Your task to perform on an android device: turn pop-ups off in chrome Image 0: 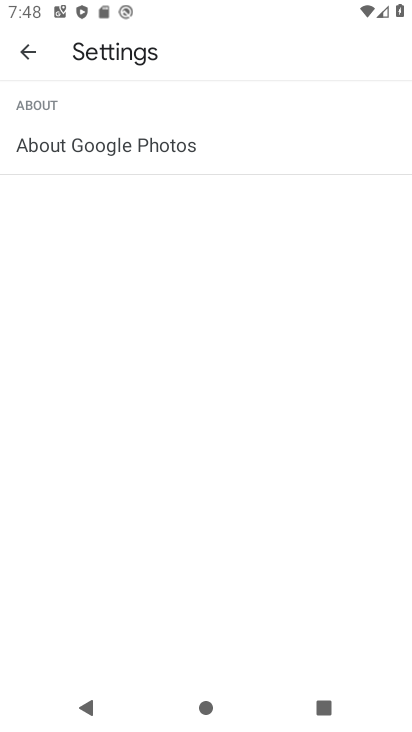
Step 0: press home button
Your task to perform on an android device: turn pop-ups off in chrome Image 1: 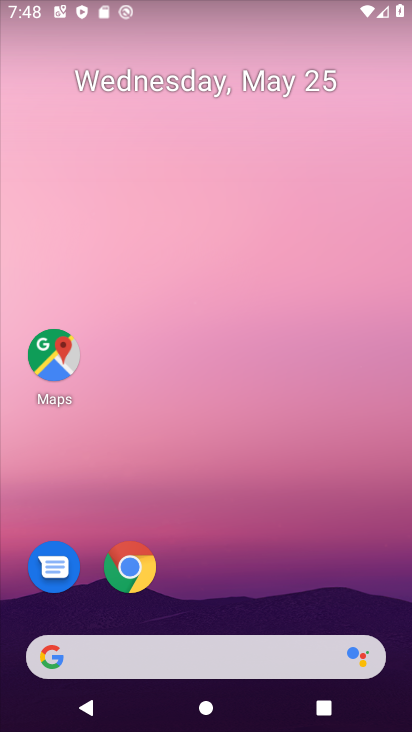
Step 1: click (139, 575)
Your task to perform on an android device: turn pop-ups off in chrome Image 2: 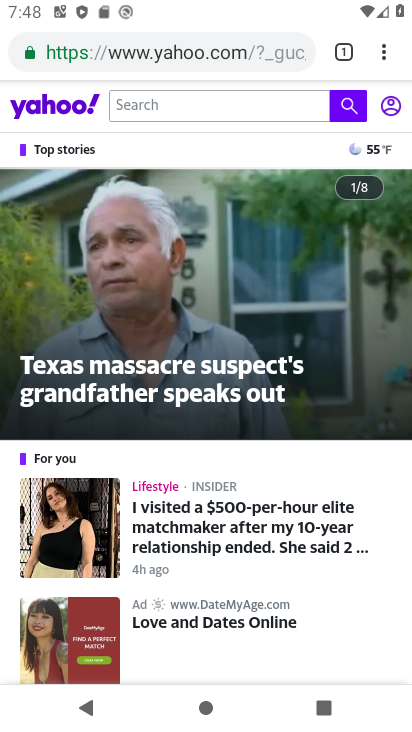
Step 2: click (389, 61)
Your task to perform on an android device: turn pop-ups off in chrome Image 3: 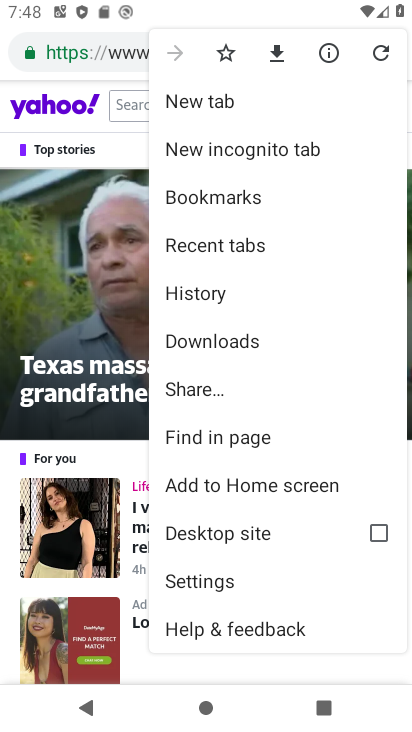
Step 3: click (195, 569)
Your task to perform on an android device: turn pop-ups off in chrome Image 4: 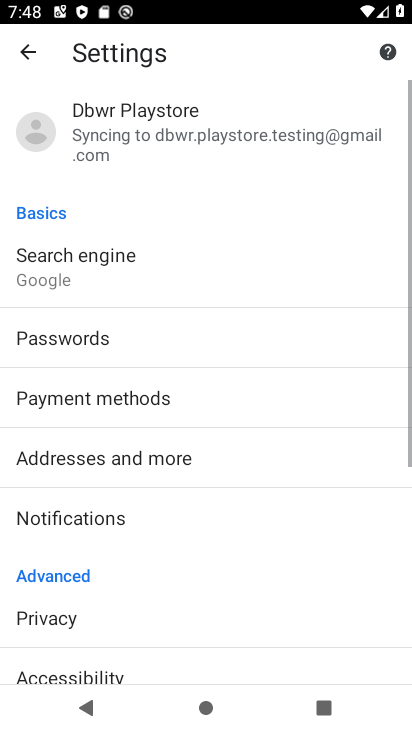
Step 4: drag from (183, 605) to (235, 232)
Your task to perform on an android device: turn pop-ups off in chrome Image 5: 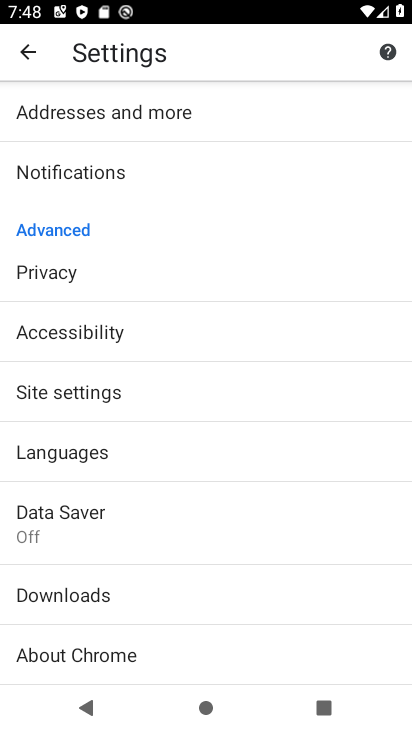
Step 5: click (152, 399)
Your task to perform on an android device: turn pop-ups off in chrome Image 6: 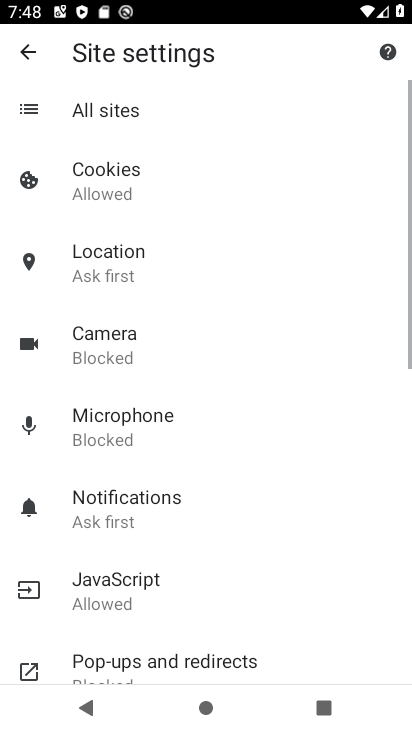
Step 6: drag from (195, 646) to (180, 687)
Your task to perform on an android device: turn pop-ups off in chrome Image 7: 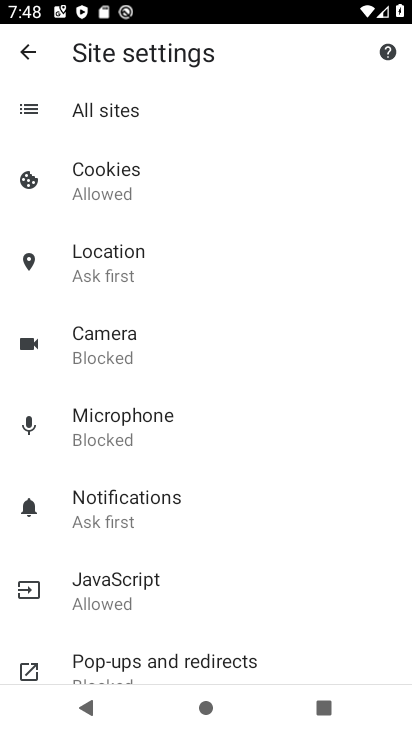
Step 7: click (186, 645)
Your task to perform on an android device: turn pop-ups off in chrome Image 8: 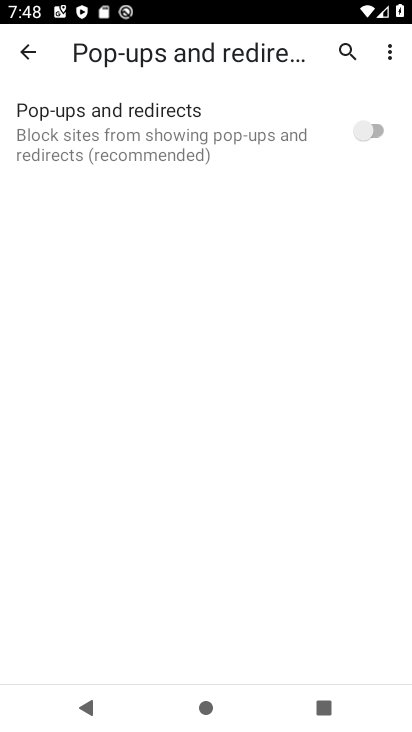
Step 8: click (373, 127)
Your task to perform on an android device: turn pop-ups off in chrome Image 9: 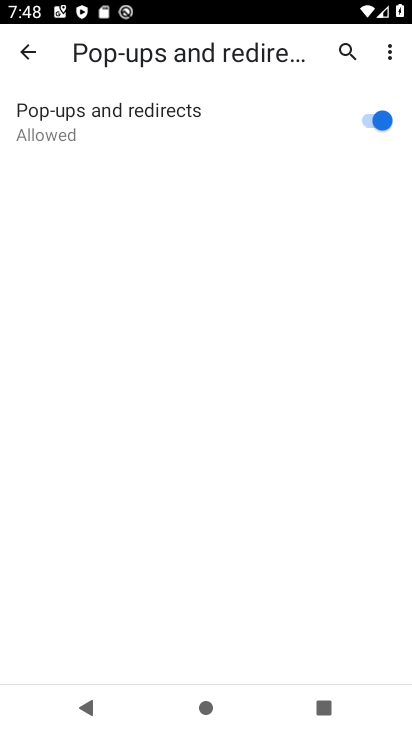
Step 9: task complete